Your task to perform on an android device: Show me recent news Image 0: 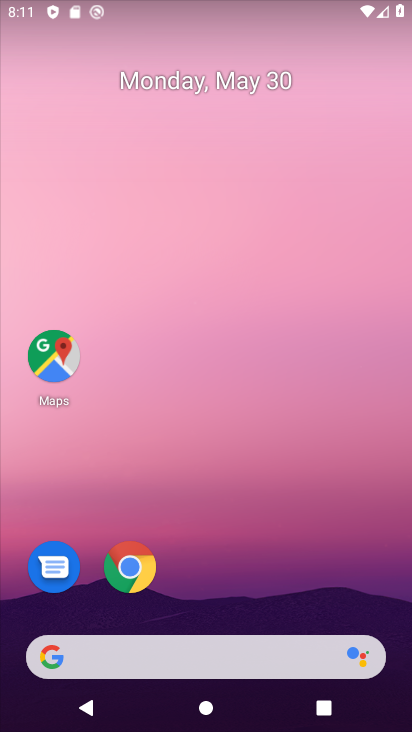
Step 0: click (152, 657)
Your task to perform on an android device: Show me recent news Image 1: 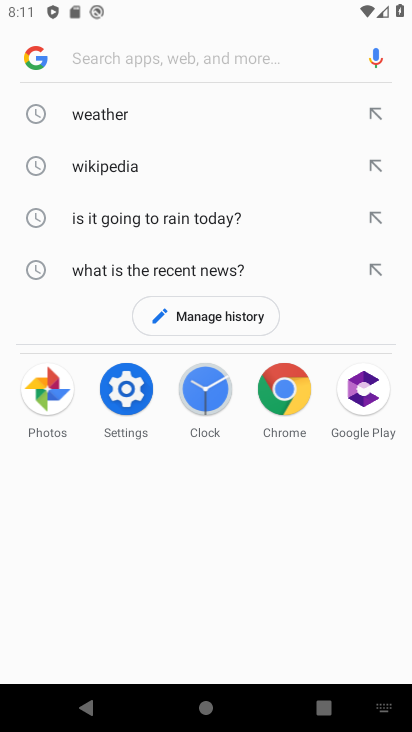
Step 1: click (119, 268)
Your task to perform on an android device: Show me recent news Image 2: 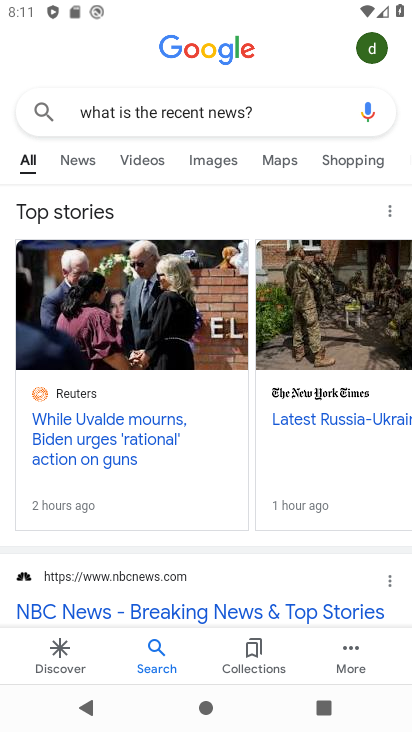
Step 2: task complete